Your task to perform on an android device: turn pop-ups on in chrome Image 0: 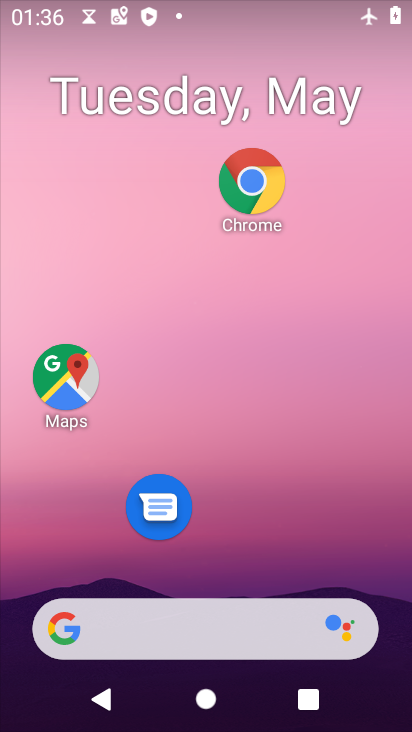
Step 0: click (262, 198)
Your task to perform on an android device: turn pop-ups on in chrome Image 1: 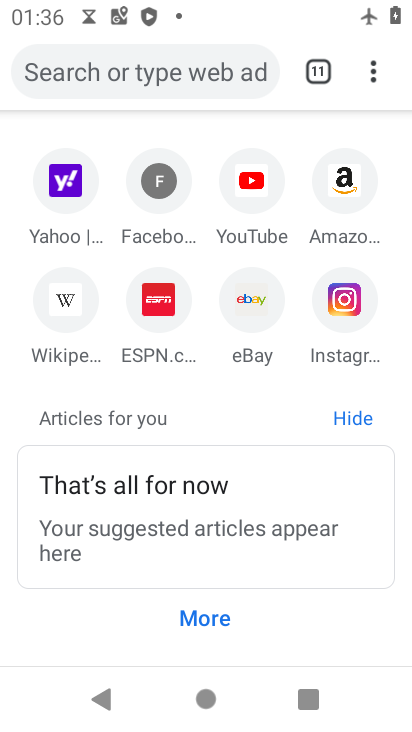
Step 1: click (369, 68)
Your task to perform on an android device: turn pop-ups on in chrome Image 2: 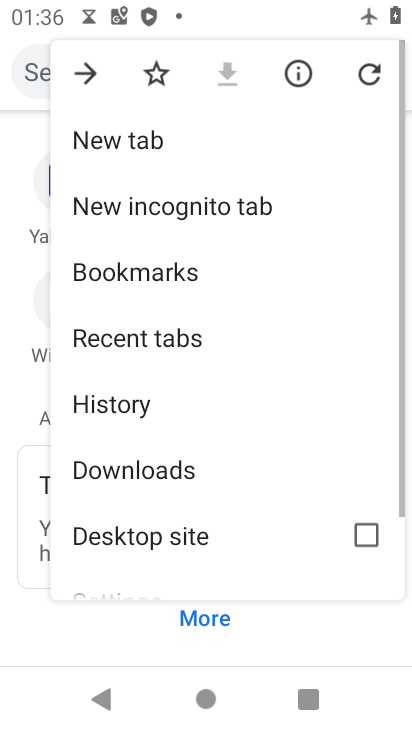
Step 2: drag from (226, 504) to (301, 158)
Your task to perform on an android device: turn pop-ups on in chrome Image 3: 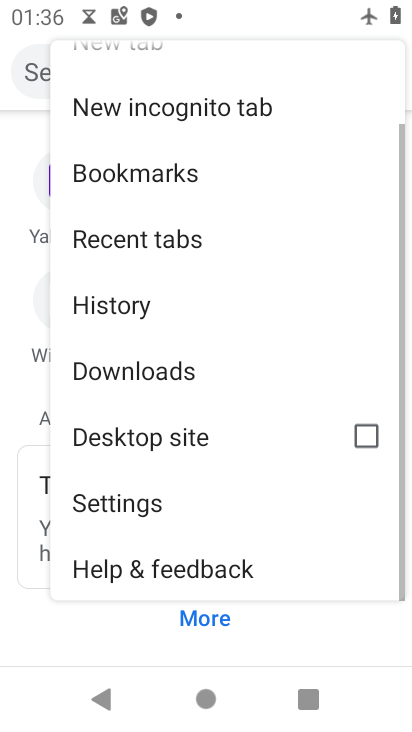
Step 3: click (142, 507)
Your task to perform on an android device: turn pop-ups on in chrome Image 4: 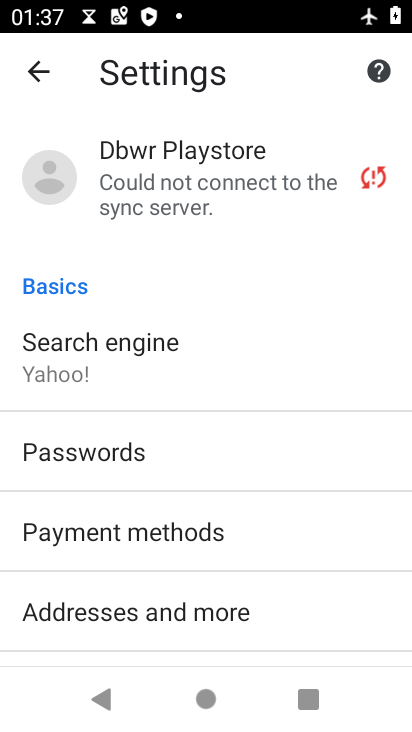
Step 4: drag from (177, 551) to (214, 215)
Your task to perform on an android device: turn pop-ups on in chrome Image 5: 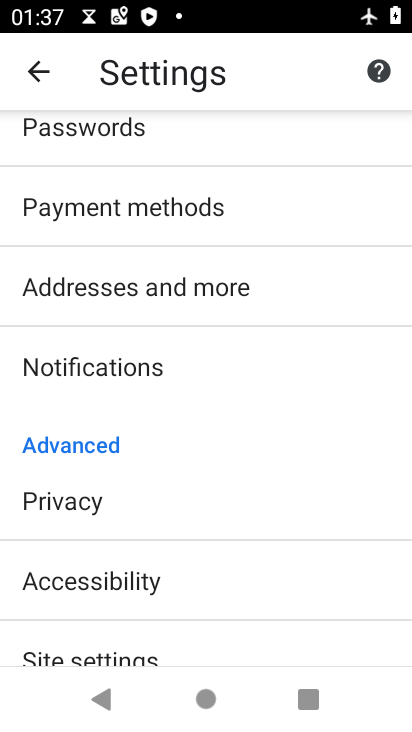
Step 5: drag from (171, 579) to (204, 303)
Your task to perform on an android device: turn pop-ups on in chrome Image 6: 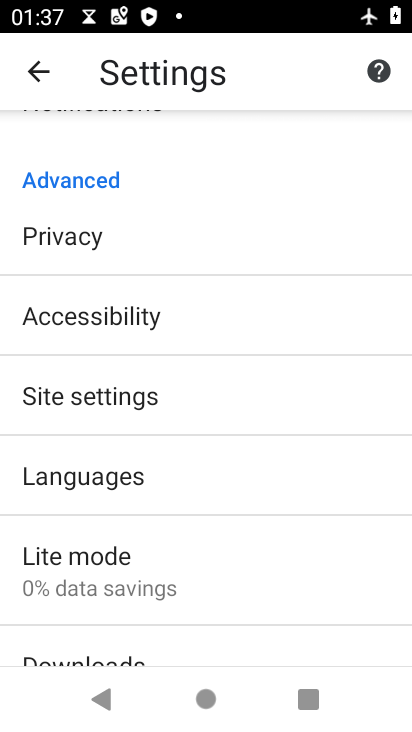
Step 6: click (146, 404)
Your task to perform on an android device: turn pop-ups on in chrome Image 7: 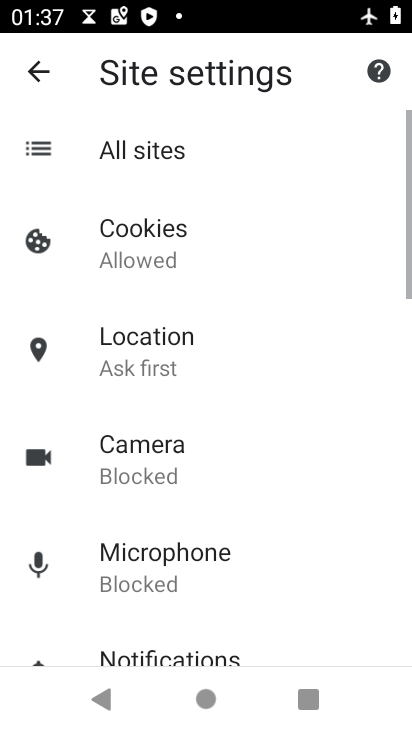
Step 7: drag from (252, 587) to (242, 297)
Your task to perform on an android device: turn pop-ups on in chrome Image 8: 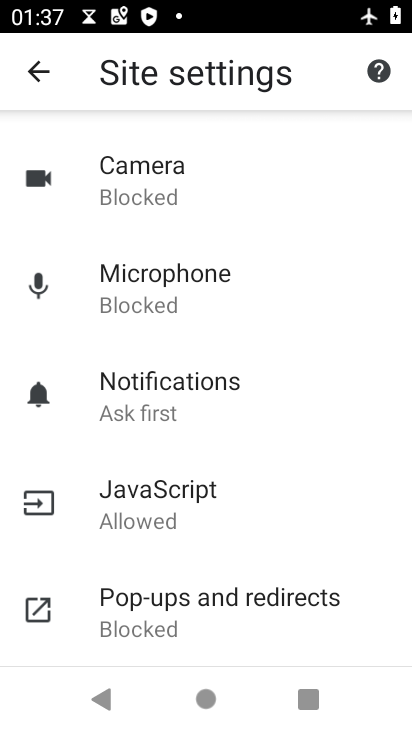
Step 8: drag from (172, 565) to (173, 416)
Your task to perform on an android device: turn pop-ups on in chrome Image 9: 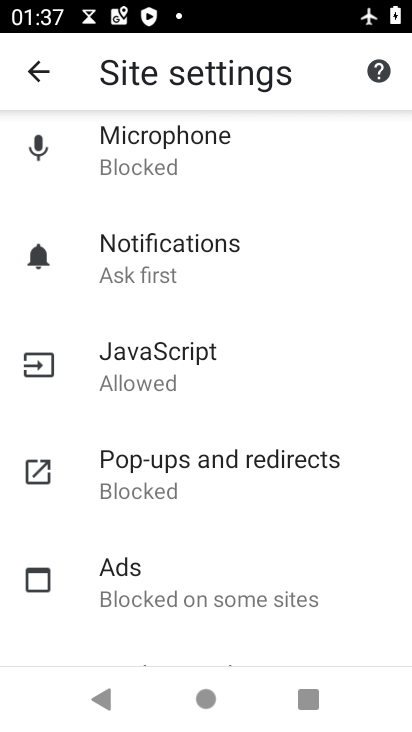
Step 9: click (166, 482)
Your task to perform on an android device: turn pop-ups on in chrome Image 10: 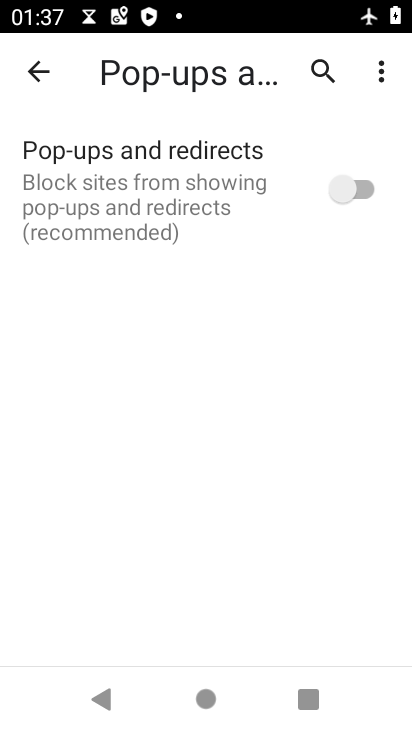
Step 10: click (356, 196)
Your task to perform on an android device: turn pop-ups on in chrome Image 11: 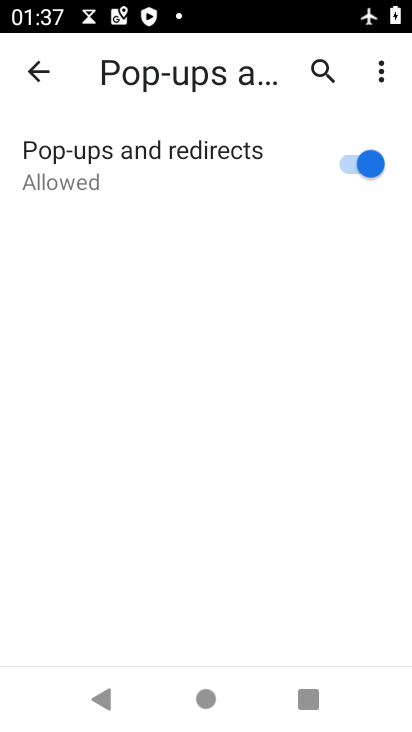
Step 11: task complete